Your task to perform on an android device: turn off picture-in-picture Image 0: 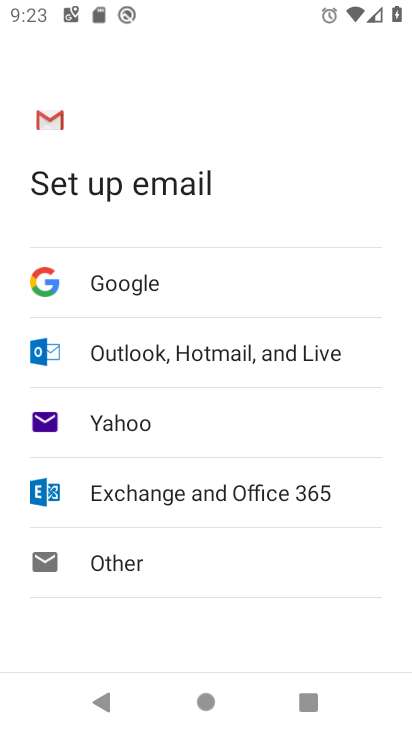
Step 0: press home button
Your task to perform on an android device: turn off picture-in-picture Image 1: 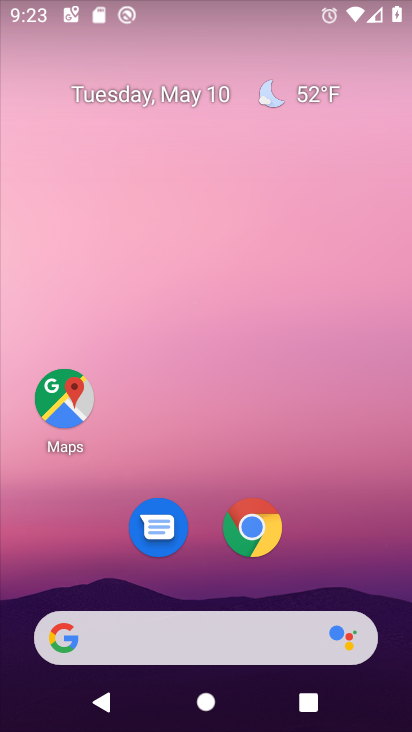
Step 1: drag from (292, 399) to (177, 45)
Your task to perform on an android device: turn off picture-in-picture Image 2: 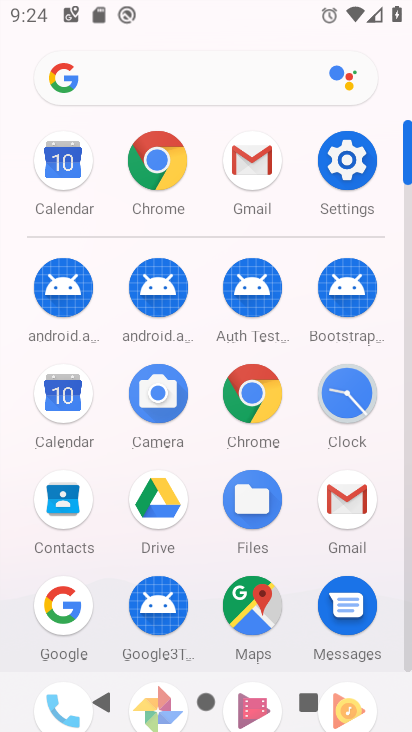
Step 2: click (335, 160)
Your task to perform on an android device: turn off picture-in-picture Image 3: 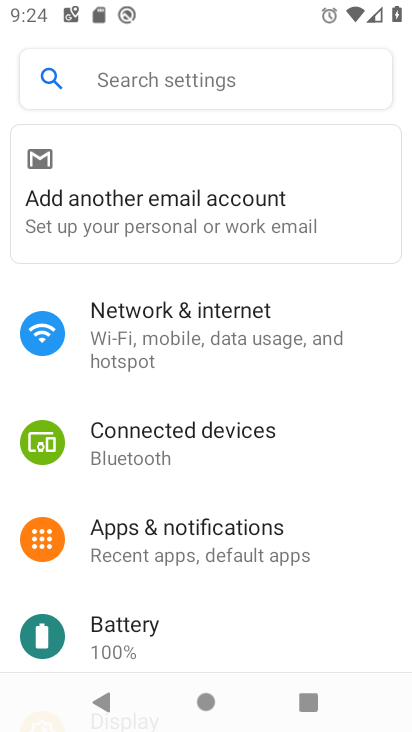
Step 3: click (213, 538)
Your task to perform on an android device: turn off picture-in-picture Image 4: 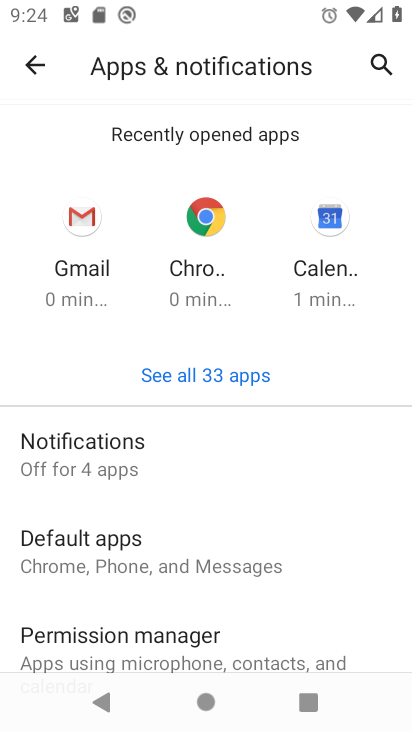
Step 4: drag from (163, 546) to (124, 282)
Your task to perform on an android device: turn off picture-in-picture Image 5: 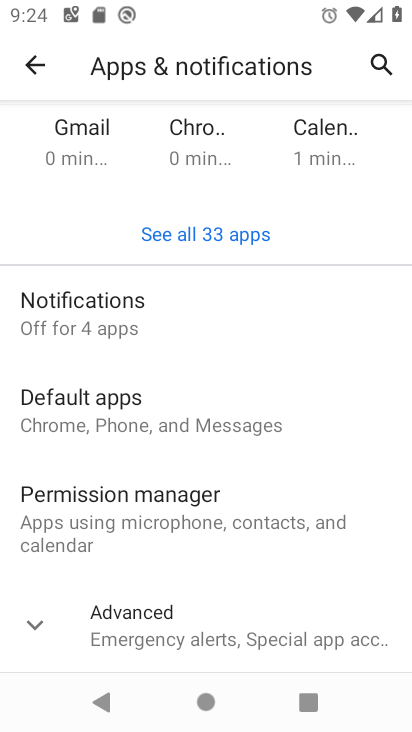
Step 5: click (151, 605)
Your task to perform on an android device: turn off picture-in-picture Image 6: 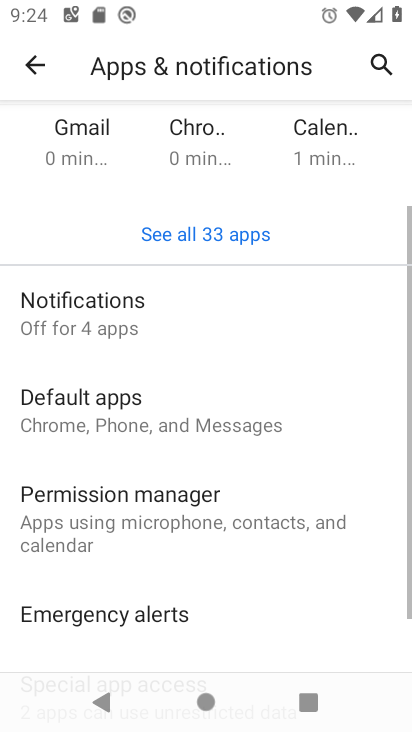
Step 6: drag from (149, 602) to (144, 305)
Your task to perform on an android device: turn off picture-in-picture Image 7: 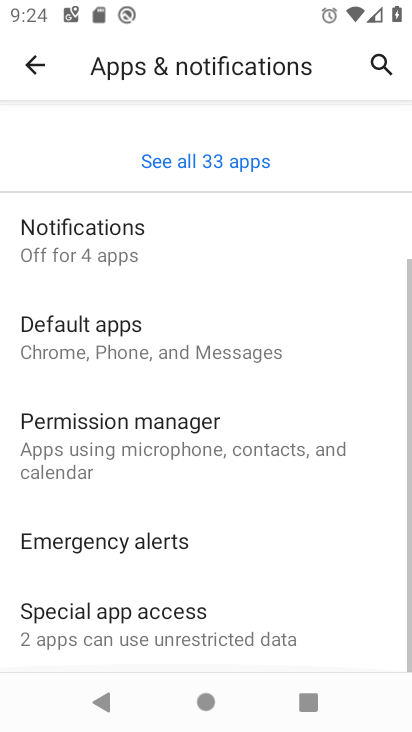
Step 7: click (100, 633)
Your task to perform on an android device: turn off picture-in-picture Image 8: 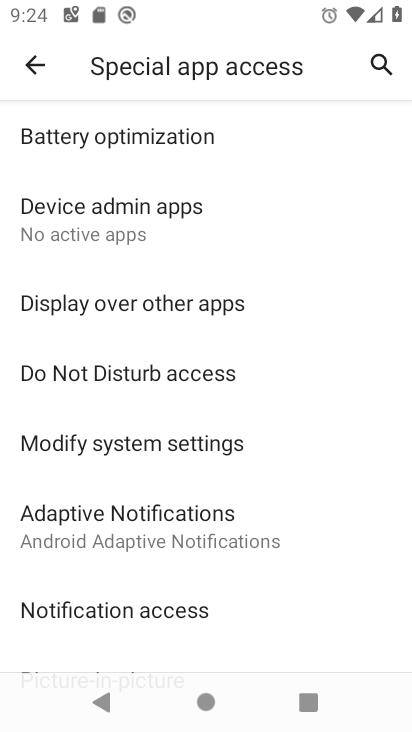
Step 8: drag from (126, 620) to (134, 338)
Your task to perform on an android device: turn off picture-in-picture Image 9: 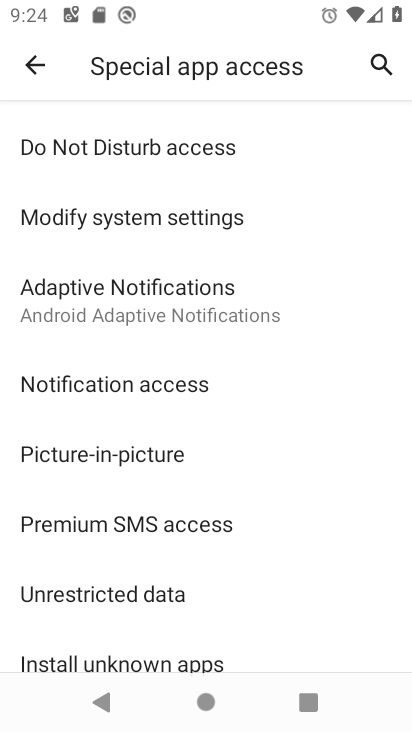
Step 9: click (106, 459)
Your task to perform on an android device: turn off picture-in-picture Image 10: 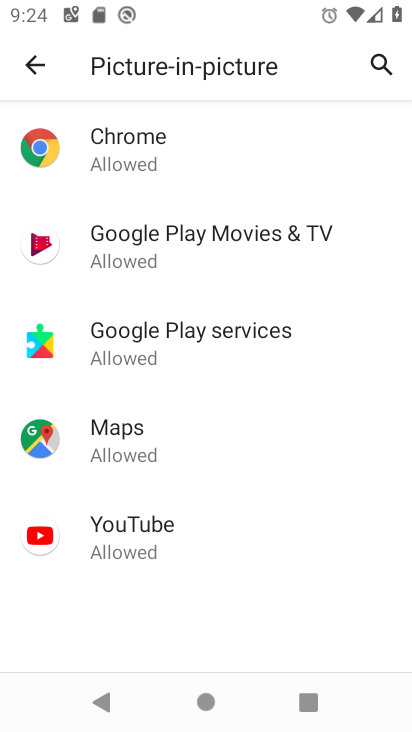
Step 10: click (157, 162)
Your task to perform on an android device: turn off picture-in-picture Image 11: 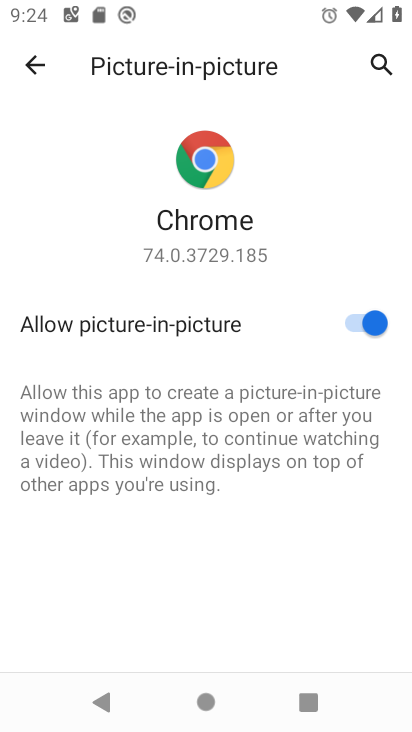
Step 11: click (366, 325)
Your task to perform on an android device: turn off picture-in-picture Image 12: 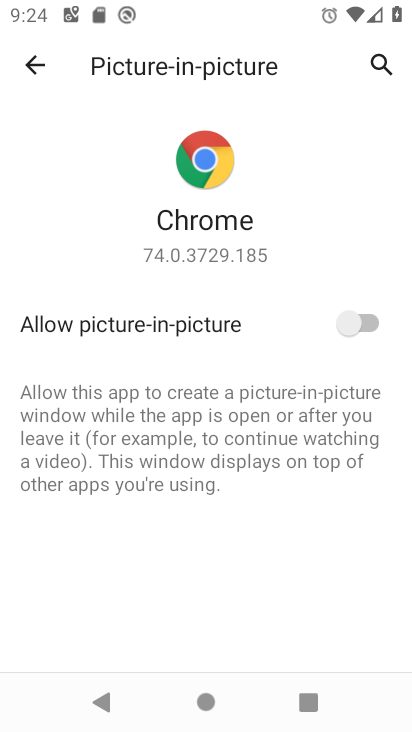
Step 12: task complete